Your task to perform on an android device: turn notification dots off Image 0: 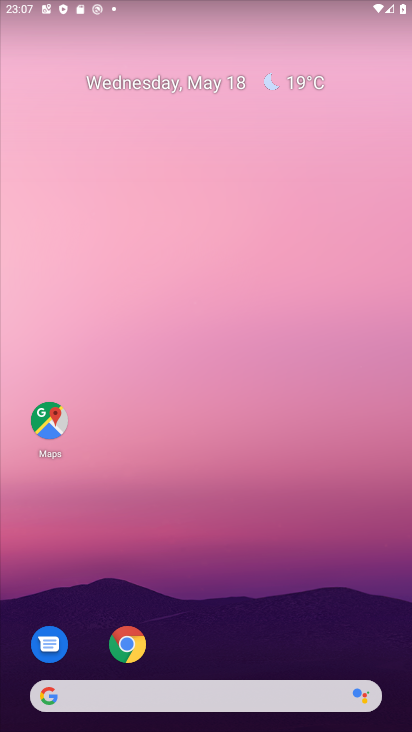
Step 0: drag from (305, 596) to (269, 99)
Your task to perform on an android device: turn notification dots off Image 1: 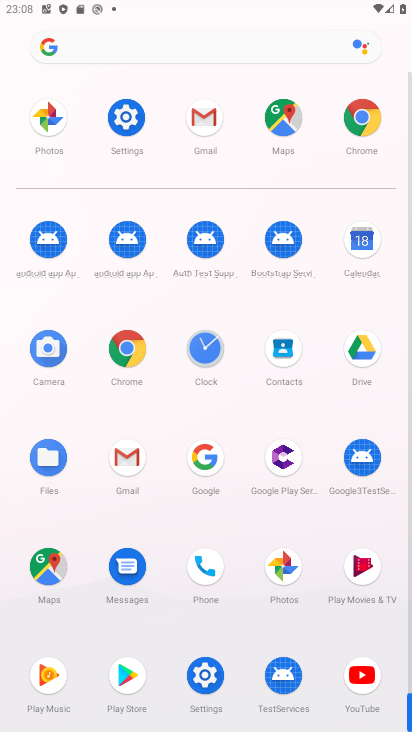
Step 1: click (121, 120)
Your task to perform on an android device: turn notification dots off Image 2: 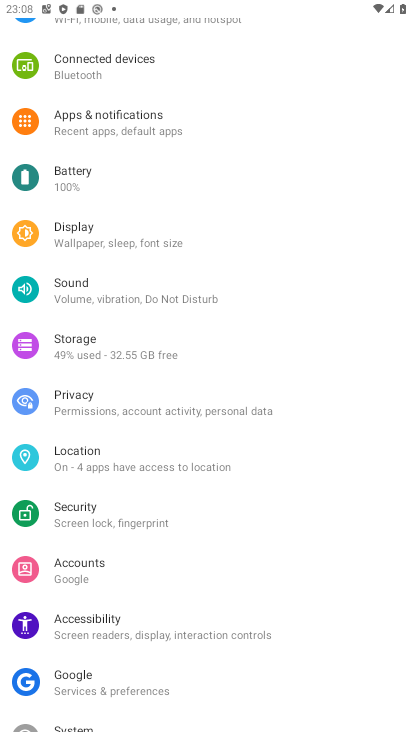
Step 2: click (123, 126)
Your task to perform on an android device: turn notification dots off Image 3: 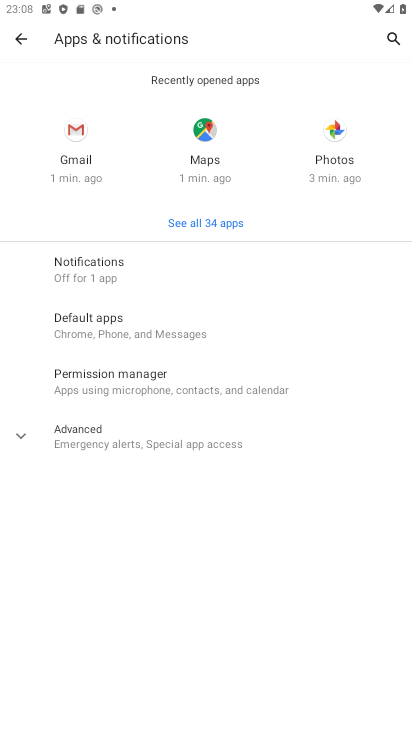
Step 3: click (129, 267)
Your task to perform on an android device: turn notification dots off Image 4: 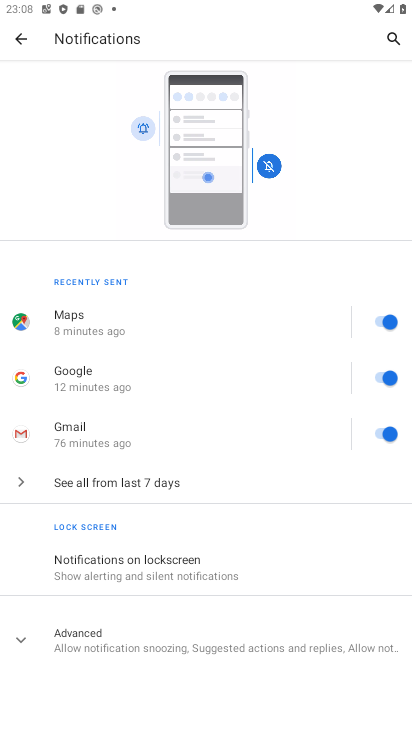
Step 4: drag from (259, 545) to (324, 171)
Your task to perform on an android device: turn notification dots off Image 5: 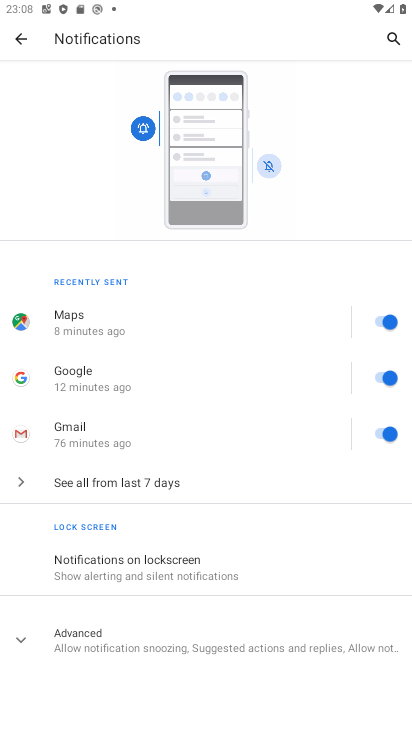
Step 5: click (220, 643)
Your task to perform on an android device: turn notification dots off Image 6: 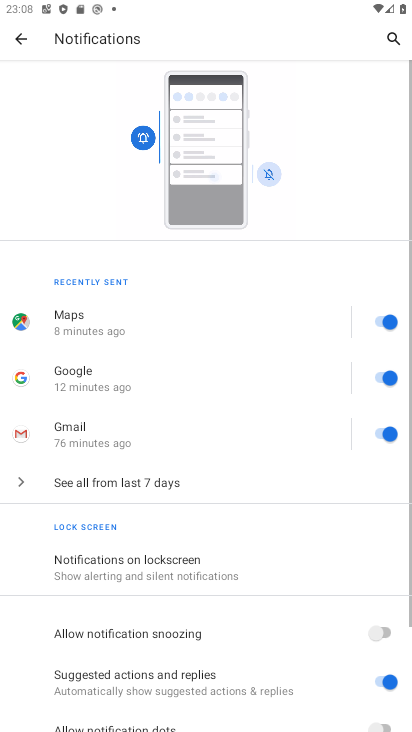
Step 6: task complete